Your task to perform on an android device: Open ESPN.com Image 0: 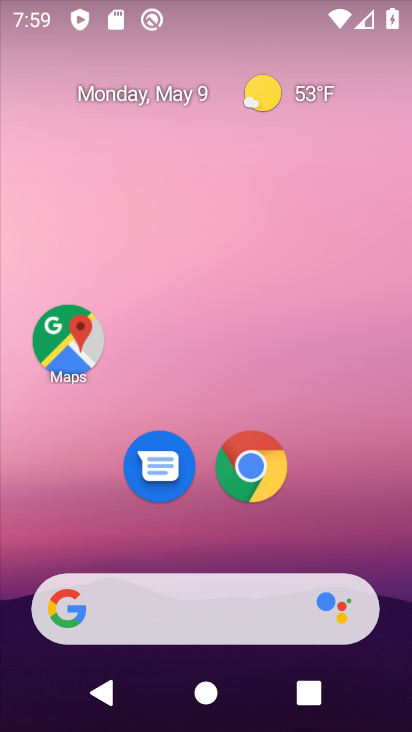
Step 0: click (250, 465)
Your task to perform on an android device: Open ESPN.com Image 1: 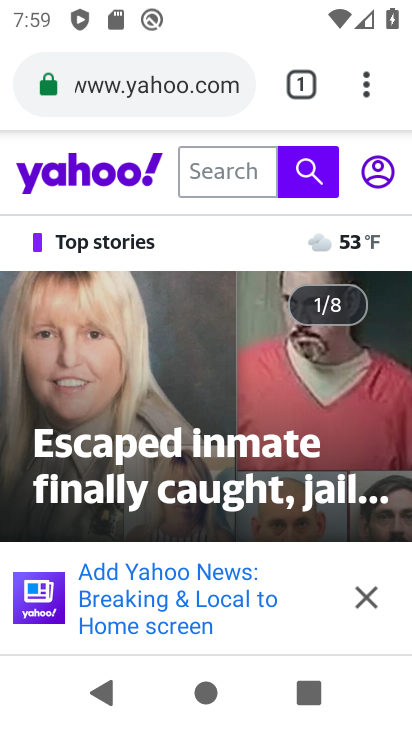
Step 1: click (179, 90)
Your task to perform on an android device: Open ESPN.com Image 2: 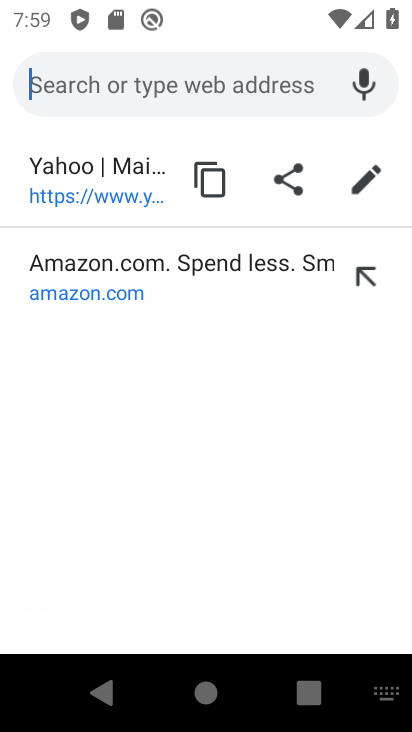
Step 2: click (232, 81)
Your task to perform on an android device: Open ESPN.com Image 3: 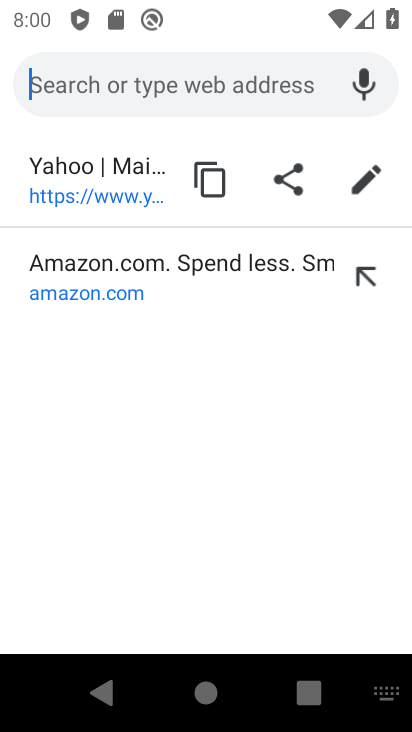
Step 3: type "ESPN.com"
Your task to perform on an android device: Open ESPN.com Image 4: 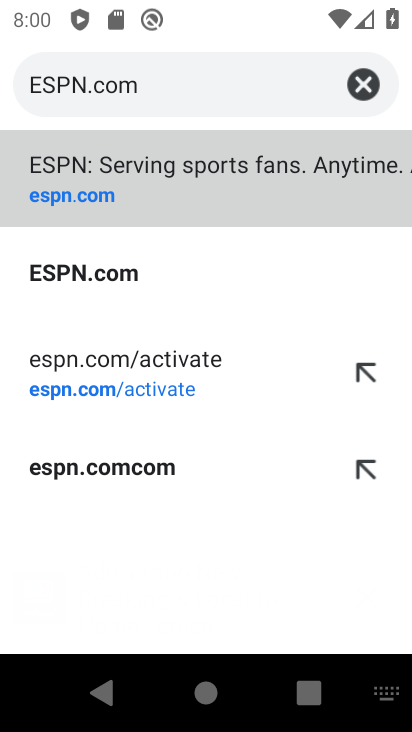
Step 4: click (114, 268)
Your task to perform on an android device: Open ESPN.com Image 5: 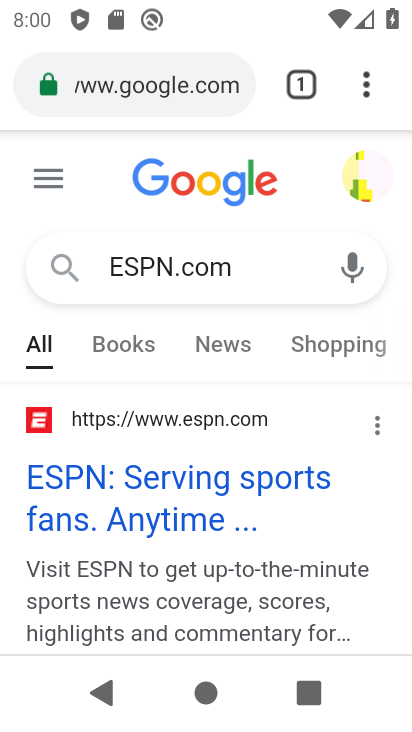
Step 5: click (192, 491)
Your task to perform on an android device: Open ESPN.com Image 6: 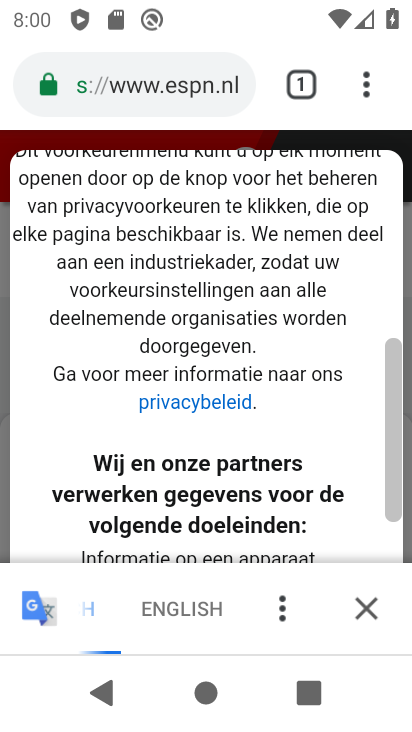
Step 6: task complete